Your task to perform on an android device: change alarm snooze length Image 0: 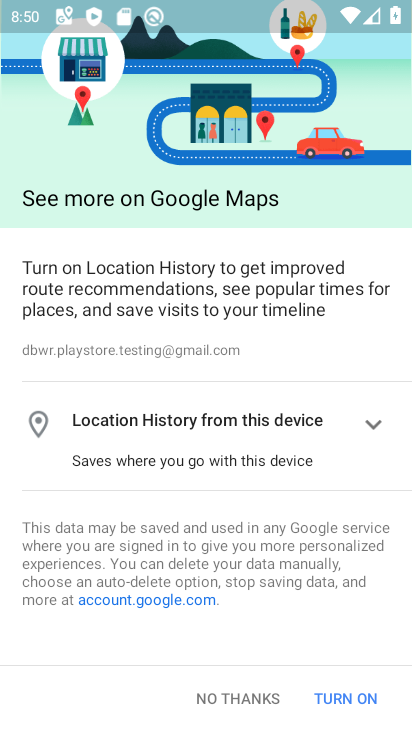
Step 0: press home button
Your task to perform on an android device: change alarm snooze length Image 1: 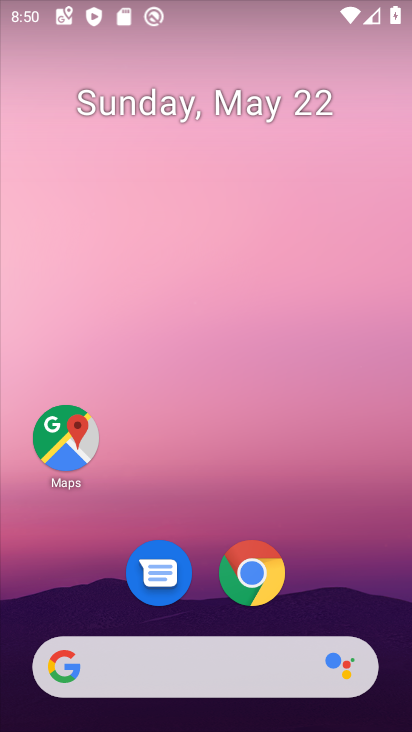
Step 1: drag from (262, 690) to (272, 107)
Your task to perform on an android device: change alarm snooze length Image 2: 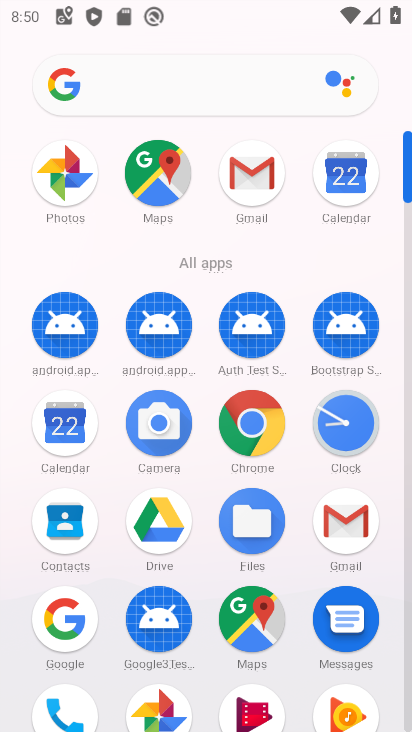
Step 2: click (346, 418)
Your task to perform on an android device: change alarm snooze length Image 3: 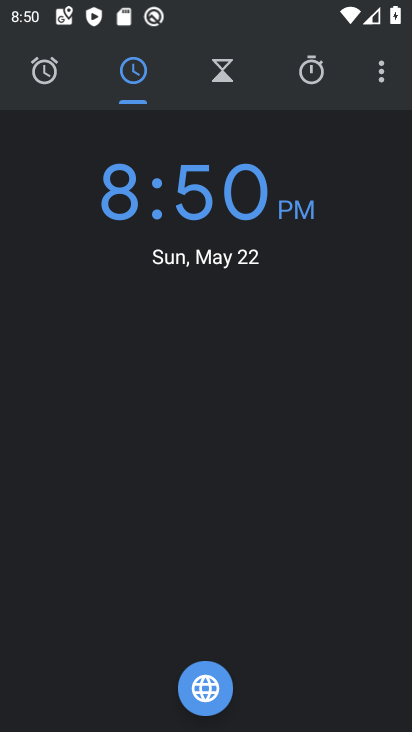
Step 3: click (390, 63)
Your task to perform on an android device: change alarm snooze length Image 4: 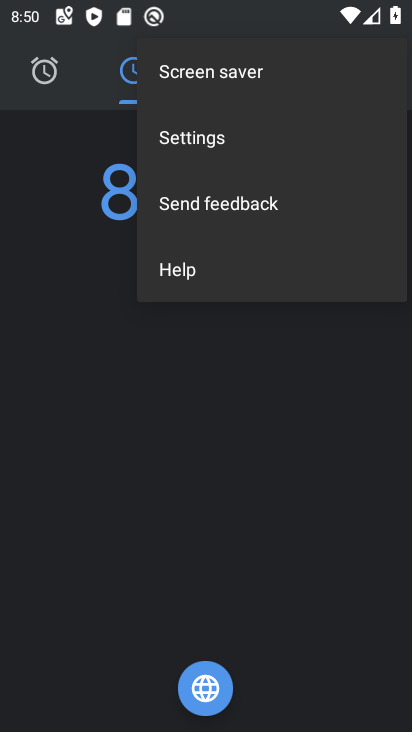
Step 4: click (221, 109)
Your task to perform on an android device: change alarm snooze length Image 5: 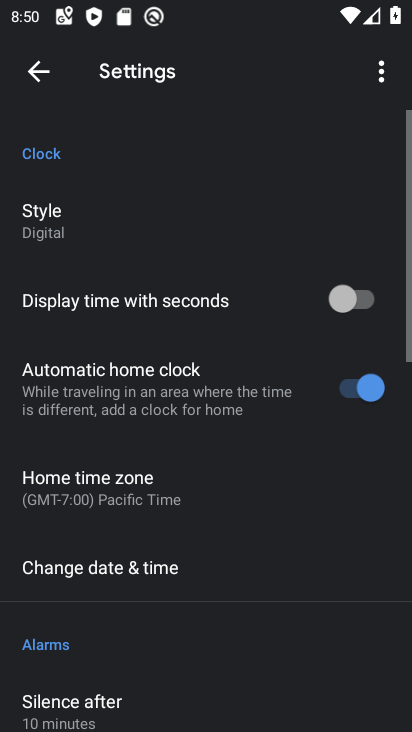
Step 5: drag from (232, 665) to (257, 113)
Your task to perform on an android device: change alarm snooze length Image 6: 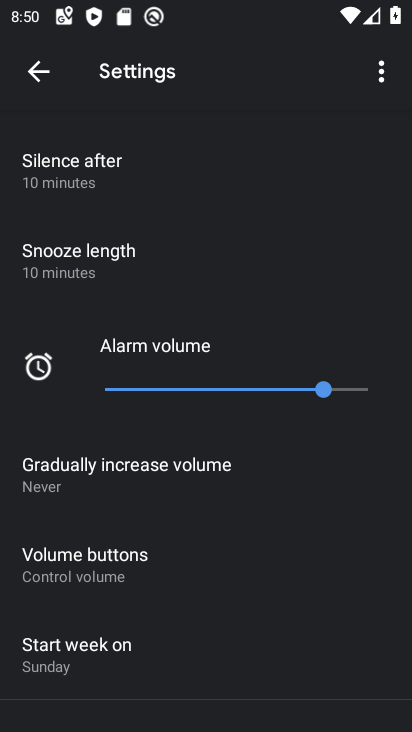
Step 6: click (169, 258)
Your task to perform on an android device: change alarm snooze length Image 7: 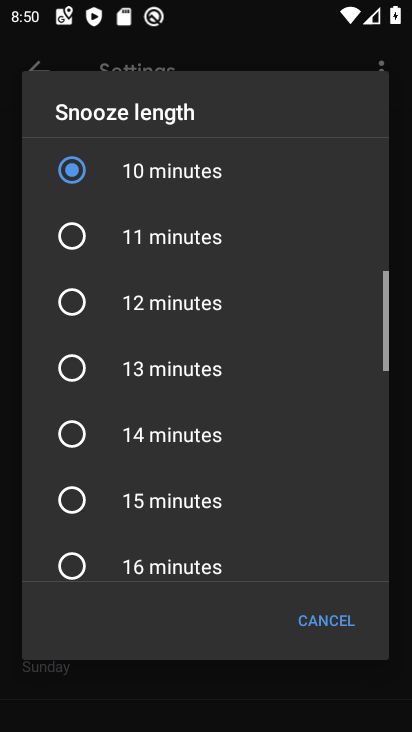
Step 7: click (200, 236)
Your task to perform on an android device: change alarm snooze length Image 8: 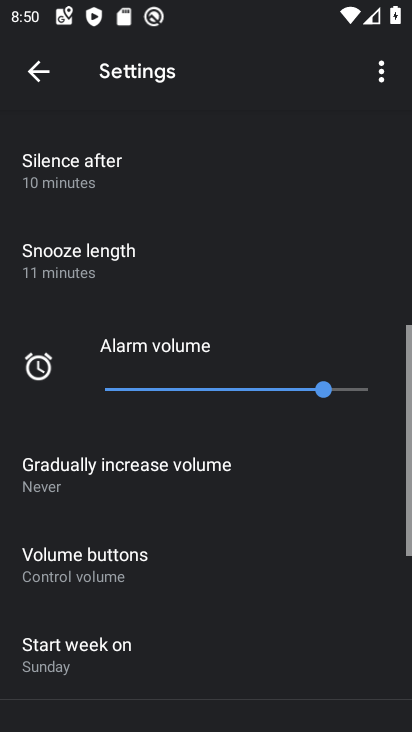
Step 8: task complete